Your task to perform on an android device: Go to Maps Image 0: 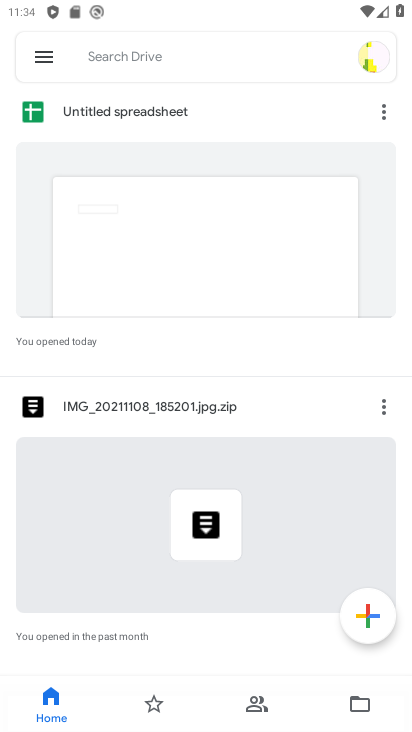
Step 0: press home button
Your task to perform on an android device: Go to Maps Image 1: 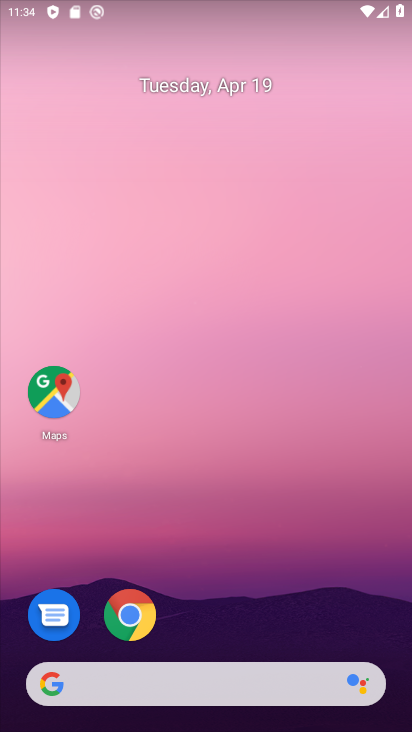
Step 1: click (59, 391)
Your task to perform on an android device: Go to Maps Image 2: 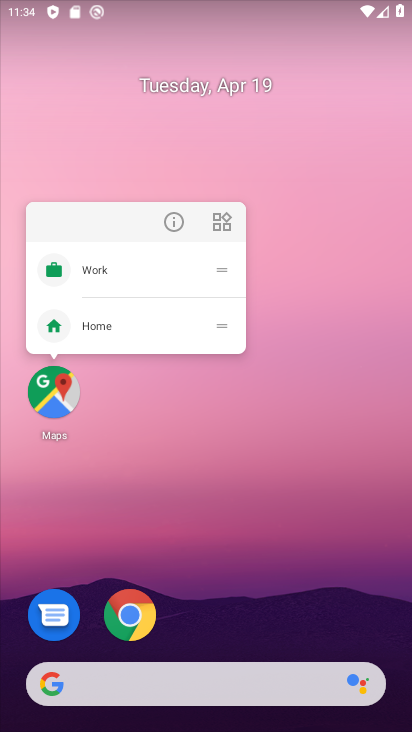
Step 2: click (227, 412)
Your task to perform on an android device: Go to Maps Image 3: 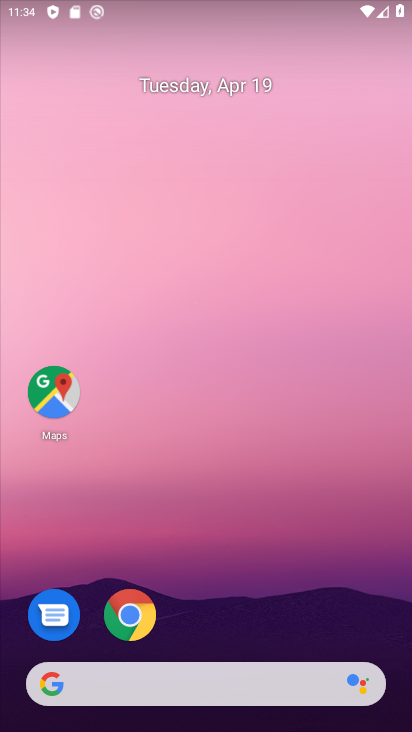
Step 3: click (50, 393)
Your task to perform on an android device: Go to Maps Image 4: 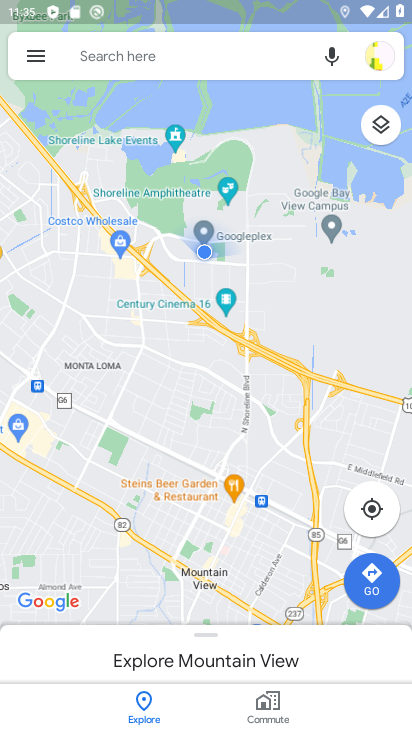
Step 4: task complete